Your task to perform on an android device: open chrome and create a bookmark for the current page Image 0: 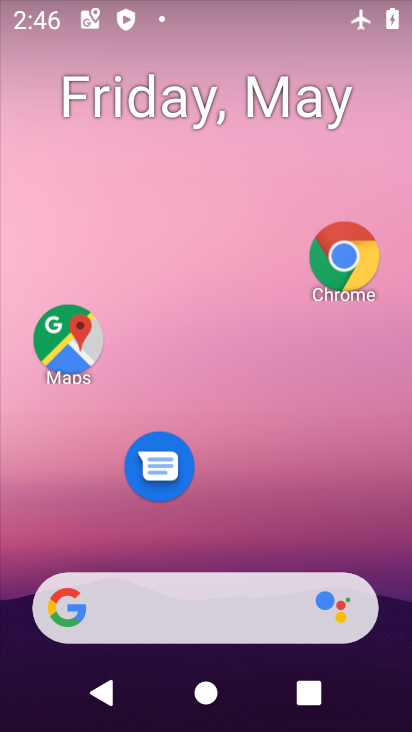
Step 0: drag from (261, 528) to (266, 96)
Your task to perform on an android device: open chrome and create a bookmark for the current page Image 1: 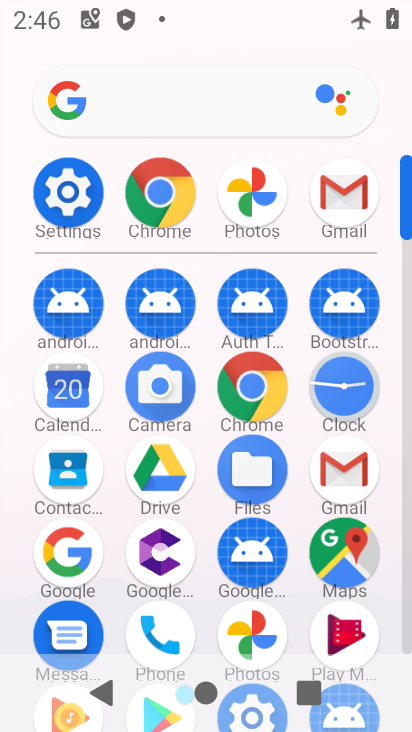
Step 1: press home button
Your task to perform on an android device: open chrome and create a bookmark for the current page Image 2: 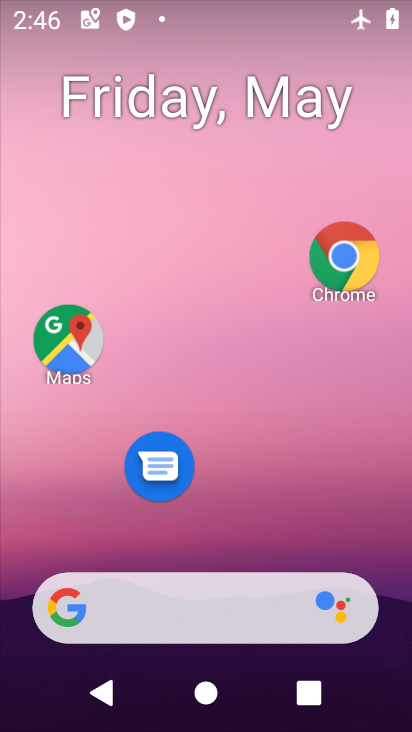
Step 2: drag from (337, 17) to (325, 429)
Your task to perform on an android device: open chrome and create a bookmark for the current page Image 3: 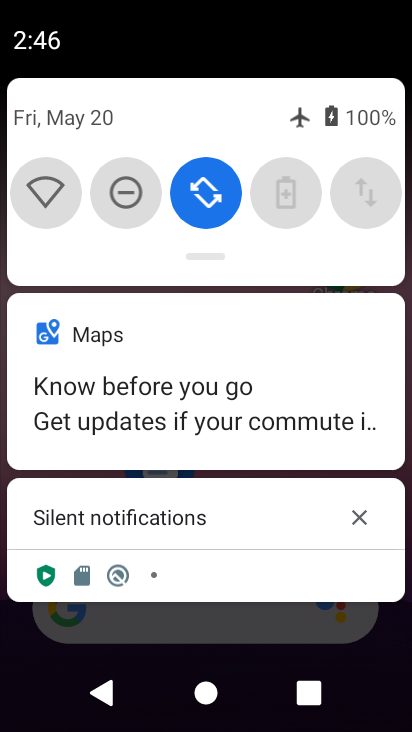
Step 3: drag from (311, 274) to (309, 507)
Your task to perform on an android device: open chrome and create a bookmark for the current page Image 4: 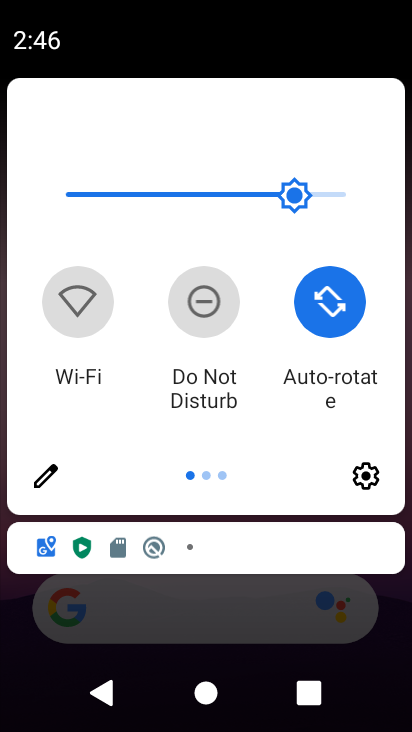
Step 4: drag from (361, 286) to (24, 304)
Your task to perform on an android device: open chrome and create a bookmark for the current page Image 5: 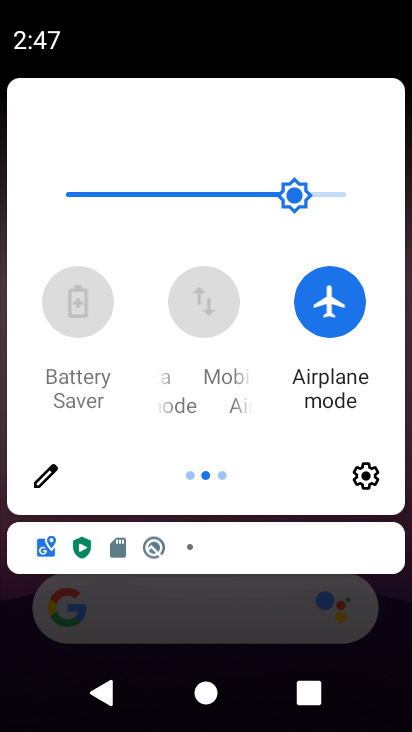
Step 5: click (324, 301)
Your task to perform on an android device: open chrome and create a bookmark for the current page Image 6: 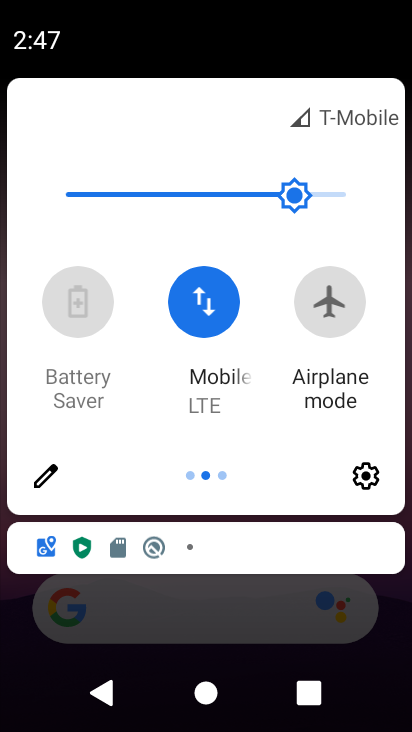
Step 6: click (384, 615)
Your task to perform on an android device: open chrome and create a bookmark for the current page Image 7: 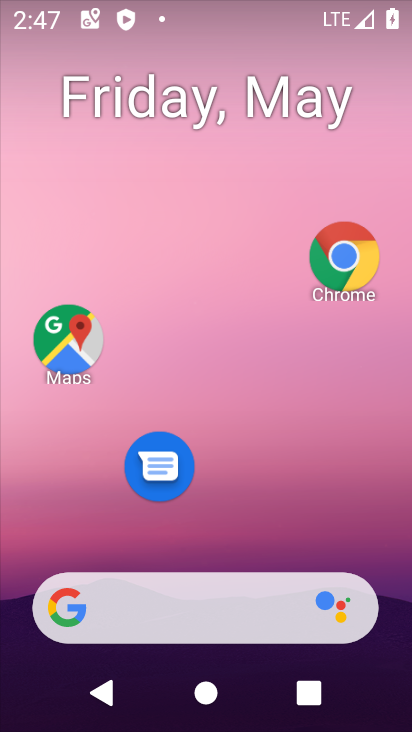
Step 7: drag from (285, 535) to (312, 100)
Your task to perform on an android device: open chrome and create a bookmark for the current page Image 8: 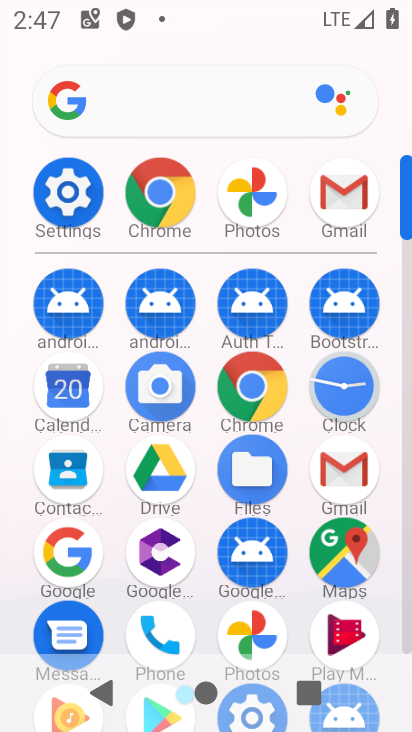
Step 8: click (258, 386)
Your task to perform on an android device: open chrome and create a bookmark for the current page Image 9: 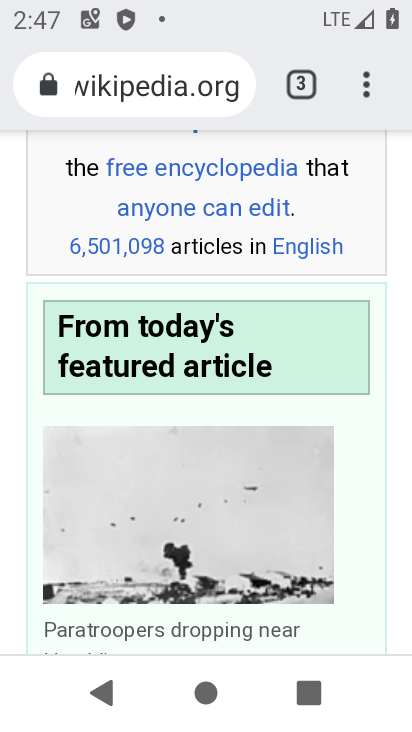
Step 9: task complete